Your task to perform on an android device: check the backup settings in the google photos Image 0: 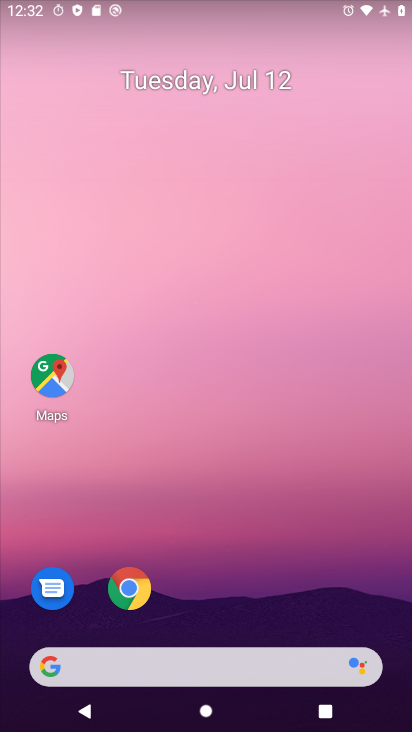
Step 0: press home button
Your task to perform on an android device: check the backup settings in the google photos Image 1: 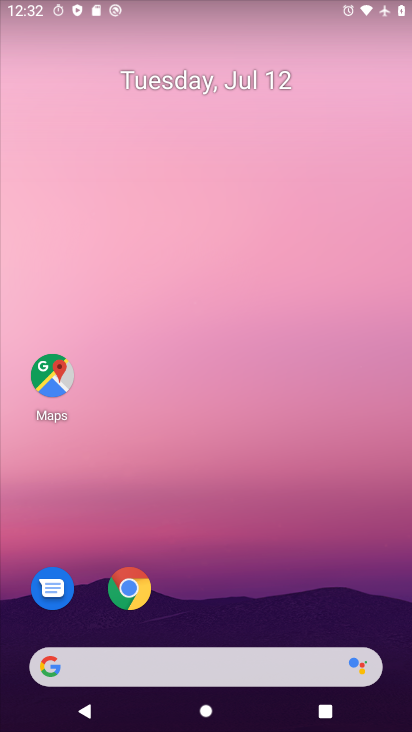
Step 1: drag from (208, 671) to (279, 140)
Your task to perform on an android device: check the backup settings in the google photos Image 2: 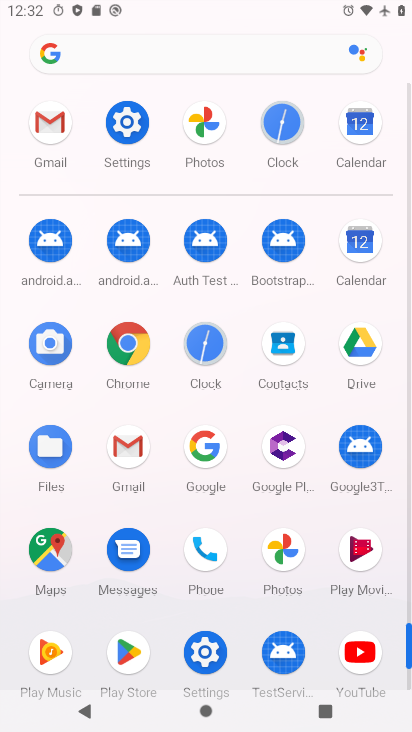
Step 2: click (292, 548)
Your task to perform on an android device: check the backup settings in the google photos Image 3: 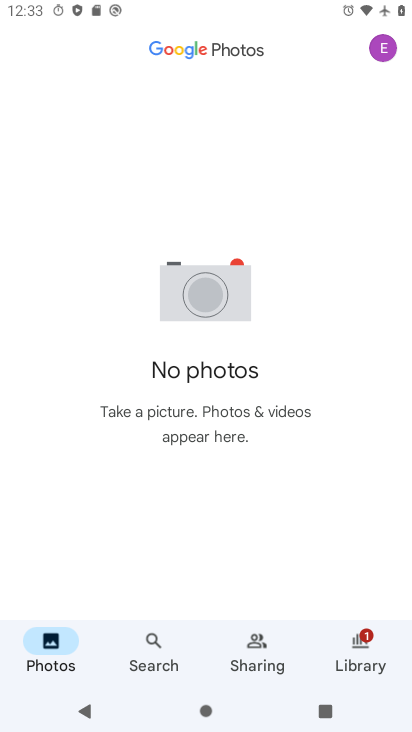
Step 3: click (378, 45)
Your task to perform on an android device: check the backup settings in the google photos Image 4: 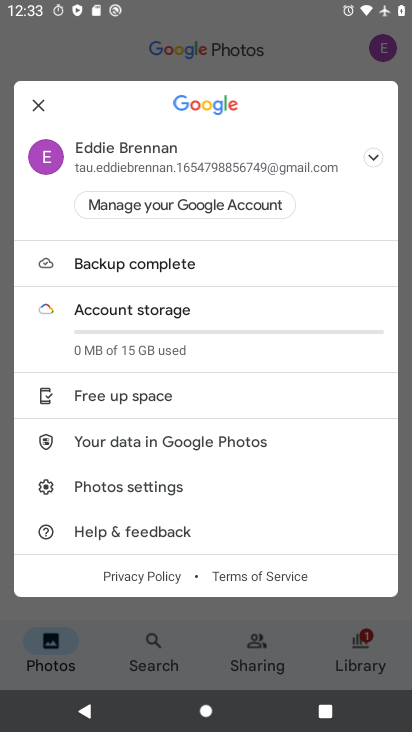
Step 4: click (165, 489)
Your task to perform on an android device: check the backup settings in the google photos Image 5: 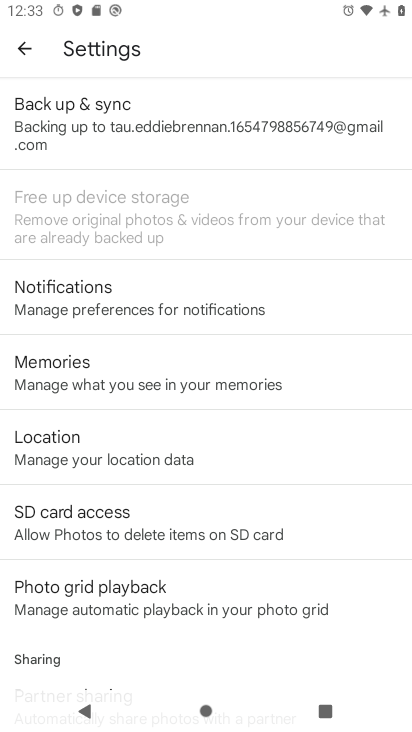
Step 5: click (182, 135)
Your task to perform on an android device: check the backup settings in the google photos Image 6: 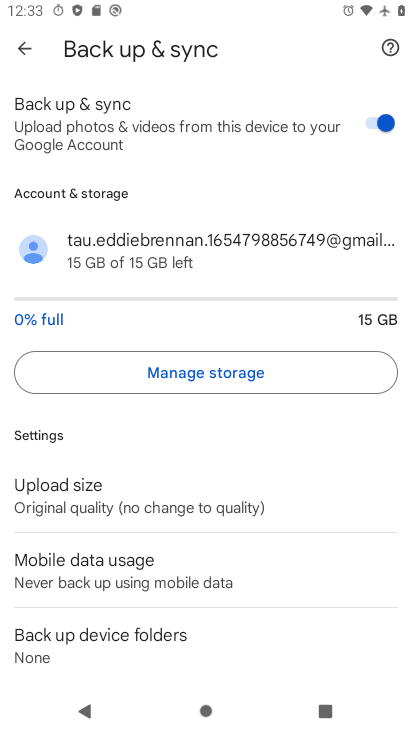
Step 6: task complete